Your task to perform on an android device: Open the phone app and click the voicemail tab. Image 0: 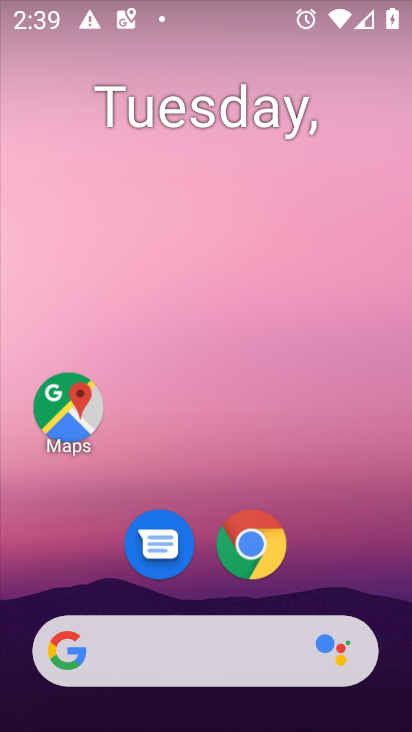
Step 0: drag from (342, 533) to (242, 10)
Your task to perform on an android device: Open the phone app and click the voicemail tab. Image 1: 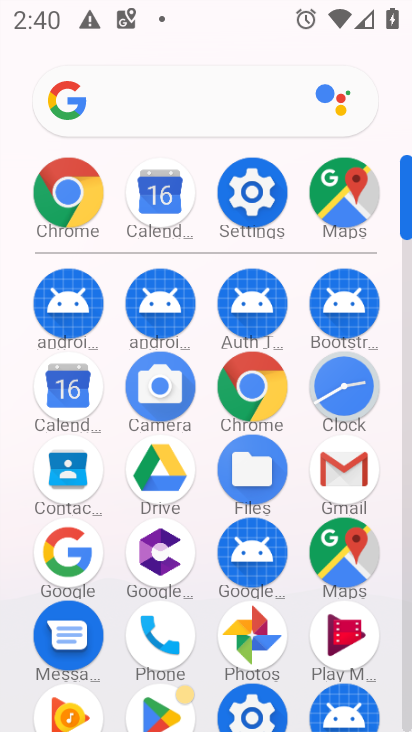
Step 1: click (166, 628)
Your task to perform on an android device: Open the phone app and click the voicemail tab. Image 2: 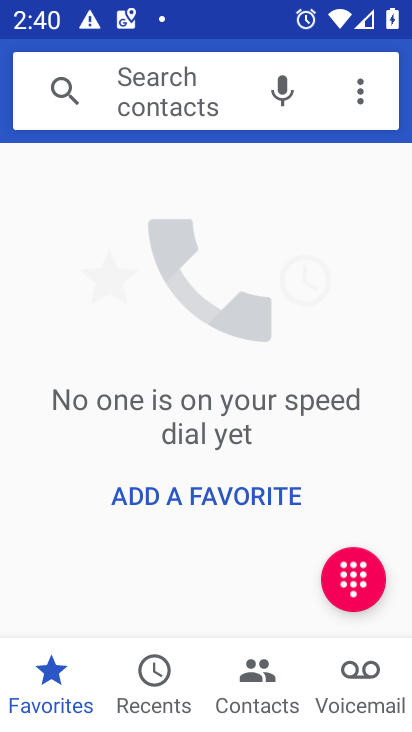
Step 2: click (369, 687)
Your task to perform on an android device: Open the phone app and click the voicemail tab. Image 3: 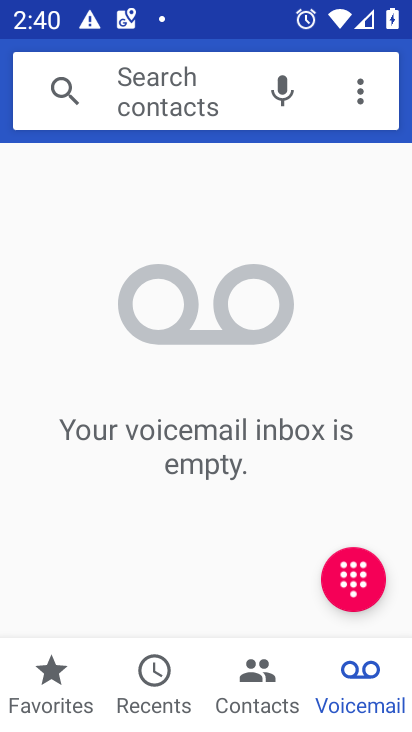
Step 3: task complete